Your task to perform on an android device: Go to location settings Image 0: 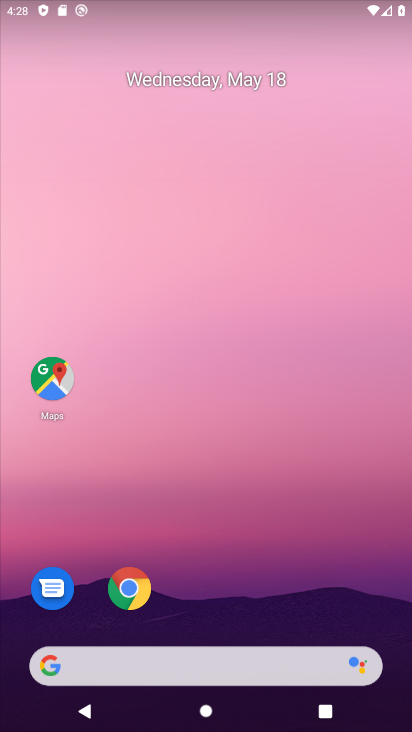
Step 0: drag from (282, 595) to (236, 93)
Your task to perform on an android device: Go to location settings Image 1: 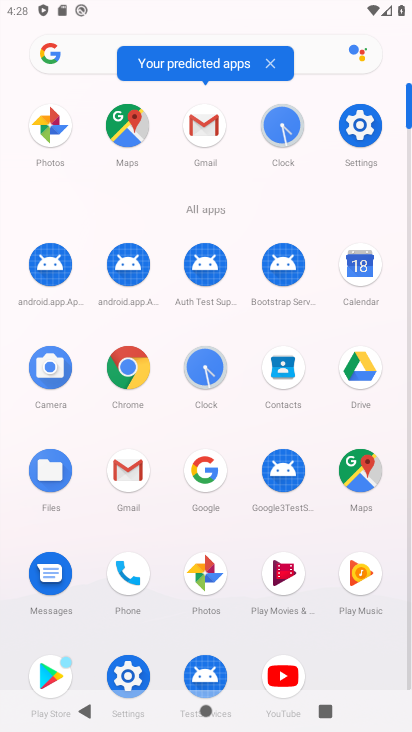
Step 1: click (354, 112)
Your task to perform on an android device: Go to location settings Image 2: 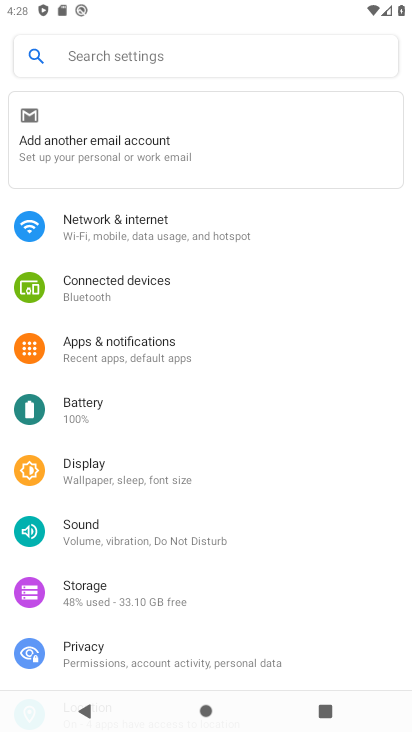
Step 2: drag from (189, 571) to (171, 203)
Your task to perform on an android device: Go to location settings Image 3: 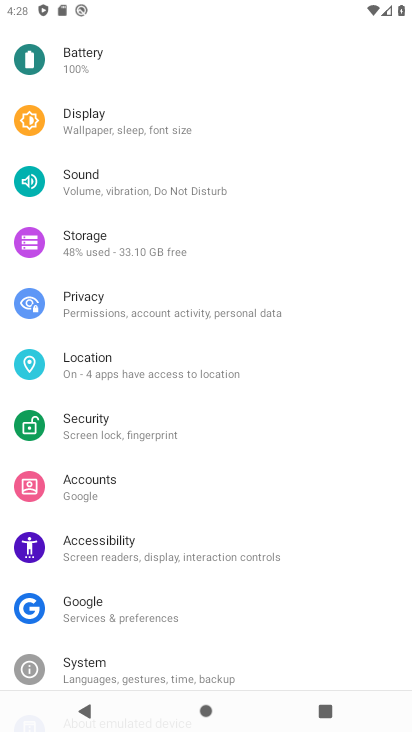
Step 3: click (81, 369)
Your task to perform on an android device: Go to location settings Image 4: 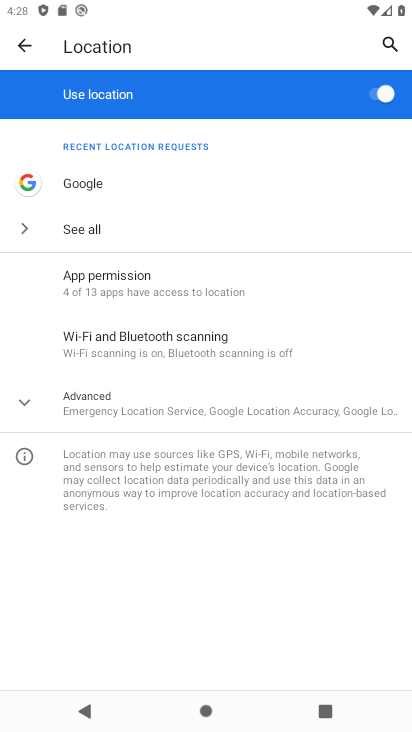
Step 4: task complete